Your task to perform on an android device: Go to Wikipedia Image 0: 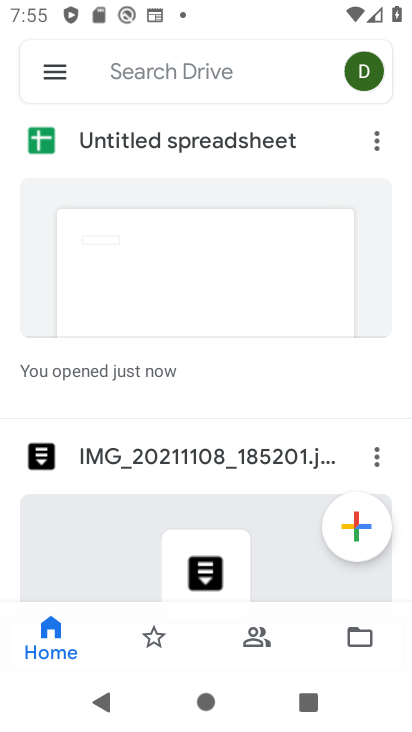
Step 0: press home button
Your task to perform on an android device: Go to Wikipedia Image 1: 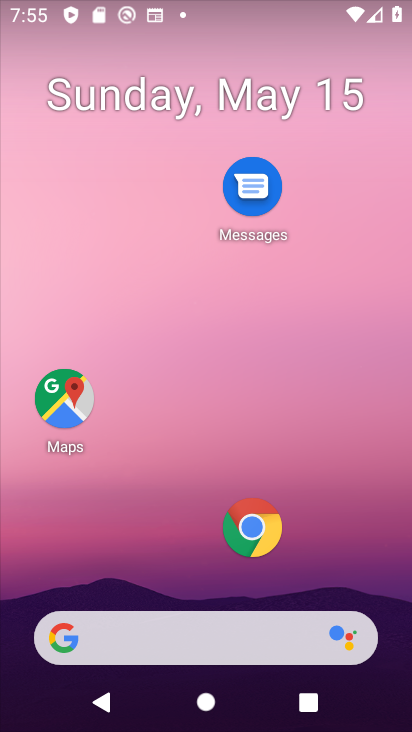
Step 1: click (253, 517)
Your task to perform on an android device: Go to Wikipedia Image 2: 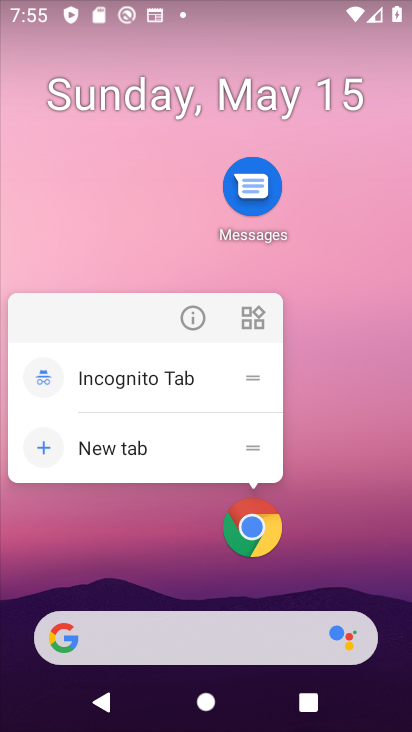
Step 2: drag from (208, 655) to (296, 110)
Your task to perform on an android device: Go to Wikipedia Image 3: 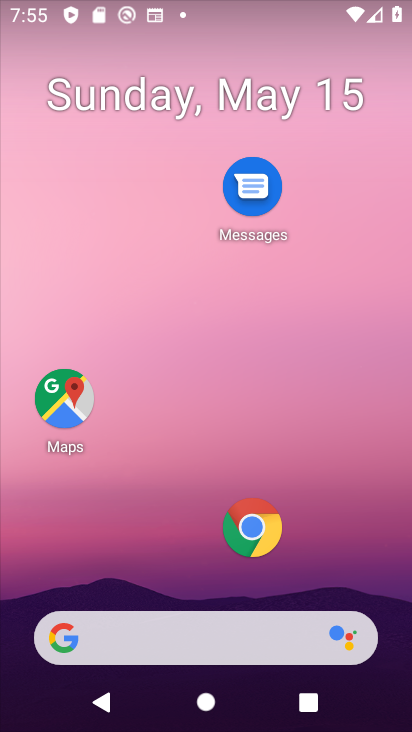
Step 3: drag from (172, 629) to (321, 68)
Your task to perform on an android device: Go to Wikipedia Image 4: 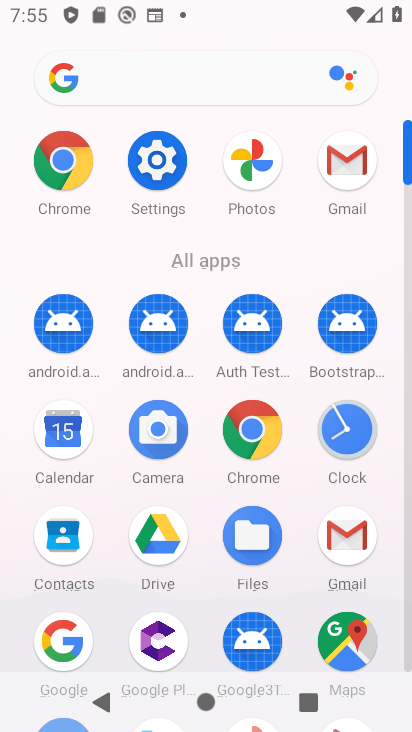
Step 4: click (70, 174)
Your task to perform on an android device: Go to Wikipedia Image 5: 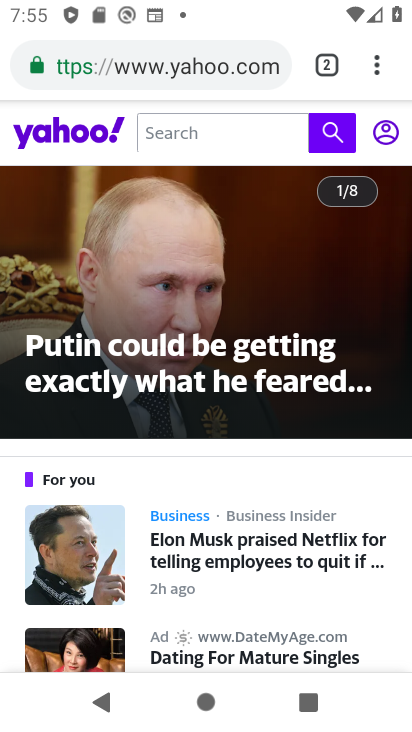
Step 5: drag from (376, 66) to (301, 123)
Your task to perform on an android device: Go to Wikipedia Image 6: 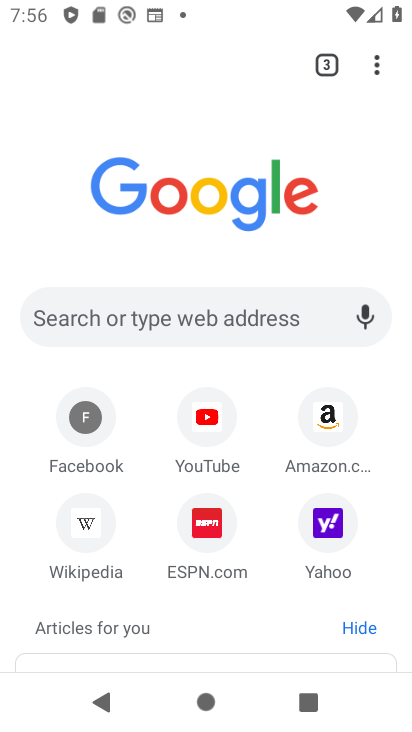
Step 6: click (80, 517)
Your task to perform on an android device: Go to Wikipedia Image 7: 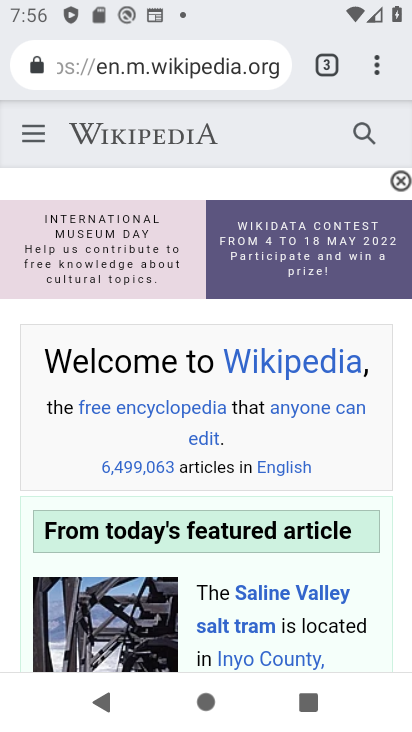
Step 7: task complete